Your task to perform on an android device: create a new album in the google photos Image 0: 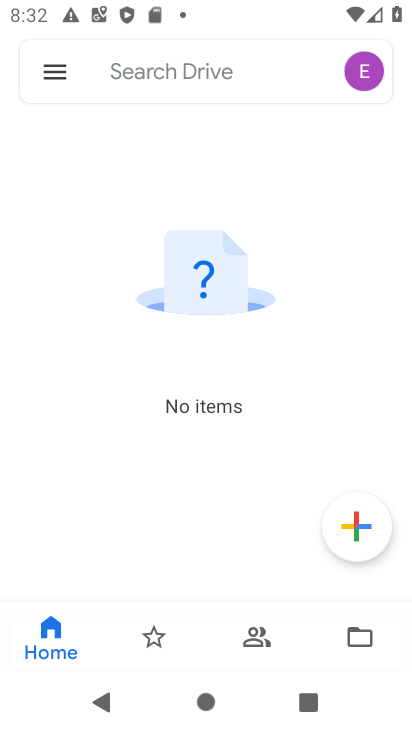
Step 0: press home button
Your task to perform on an android device: create a new album in the google photos Image 1: 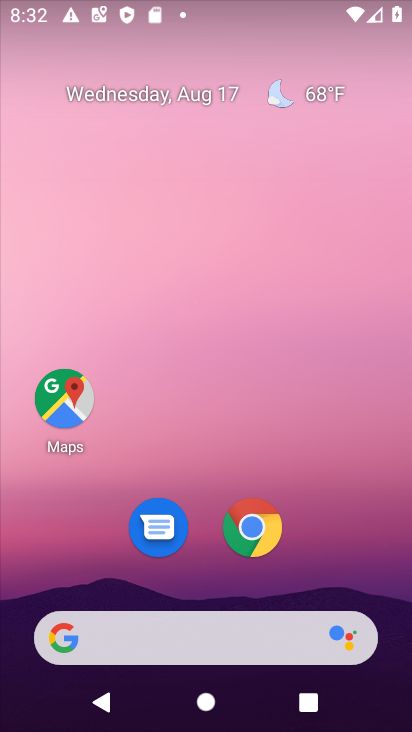
Step 1: drag from (200, 580) to (150, 104)
Your task to perform on an android device: create a new album in the google photos Image 2: 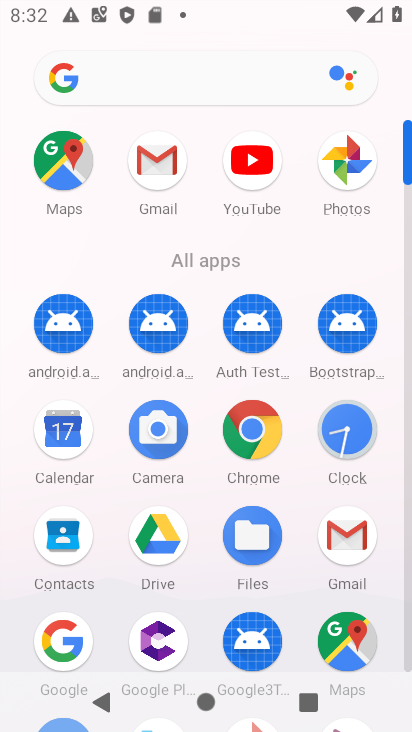
Step 2: click (353, 164)
Your task to perform on an android device: create a new album in the google photos Image 3: 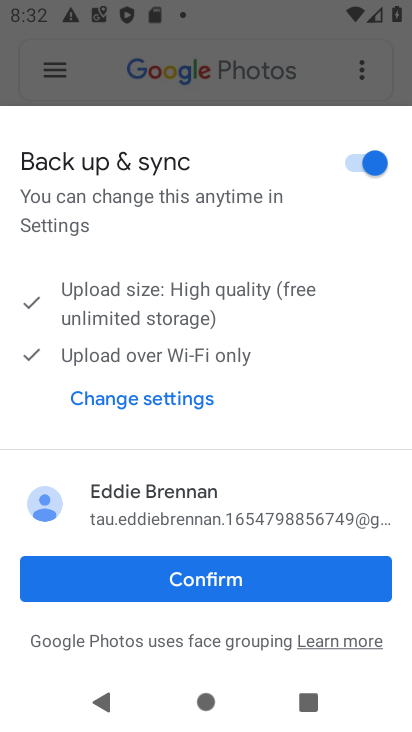
Step 3: click (237, 594)
Your task to perform on an android device: create a new album in the google photos Image 4: 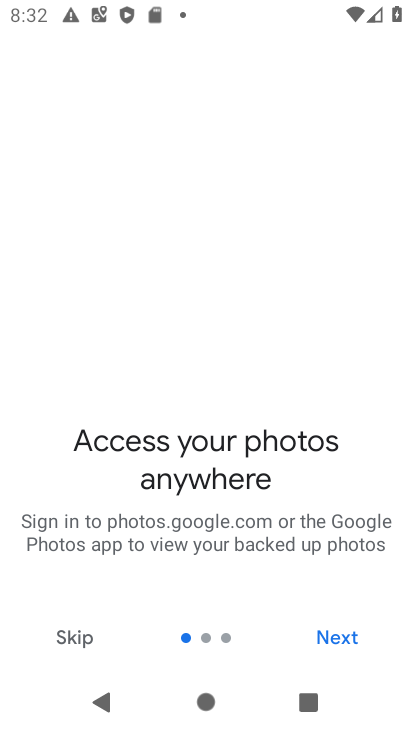
Step 4: click (237, 594)
Your task to perform on an android device: create a new album in the google photos Image 5: 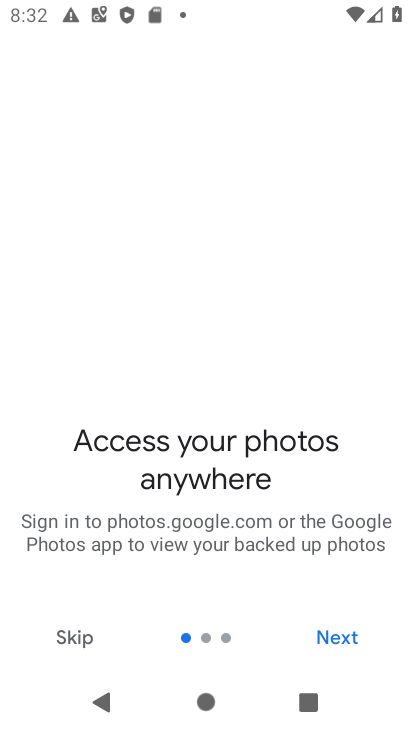
Step 5: click (353, 646)
Your task to perform on an android device: create a new album in the google photos Image 6: 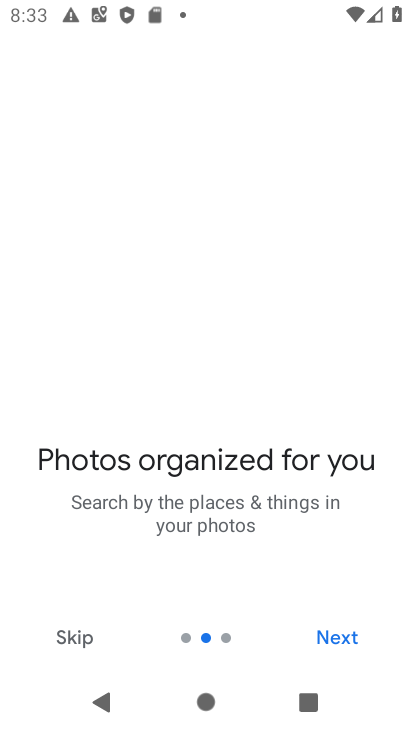
Step 6: click (353, 646)
Your task to perform on an android device: create a new album in the google photos Image 7: 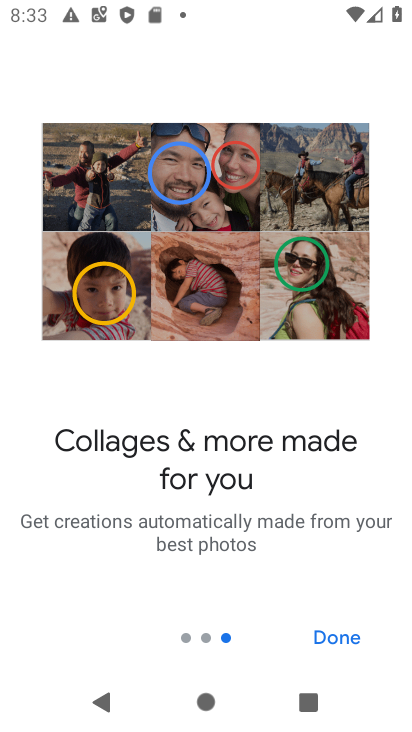
Step 7: click (353, 646)
Your task to perform on an android device: create a new album in the google photos Image 8: 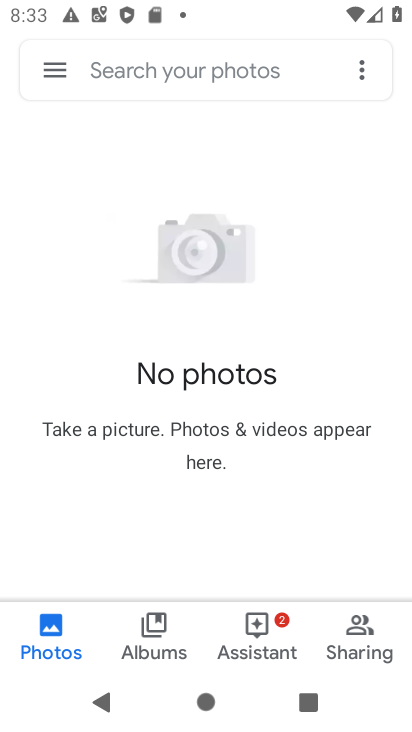
Step 8: task complete